Your task to perform on an android device: Open Youtube and go to the subscriptions tab Image 0: 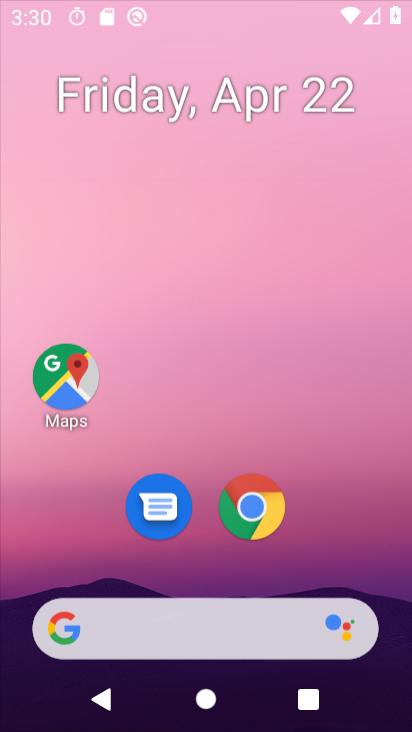
Step 0: click (387, 3)
Your task to perform on an android device: Open Youtube and go to the subscriptions tab Image 1: 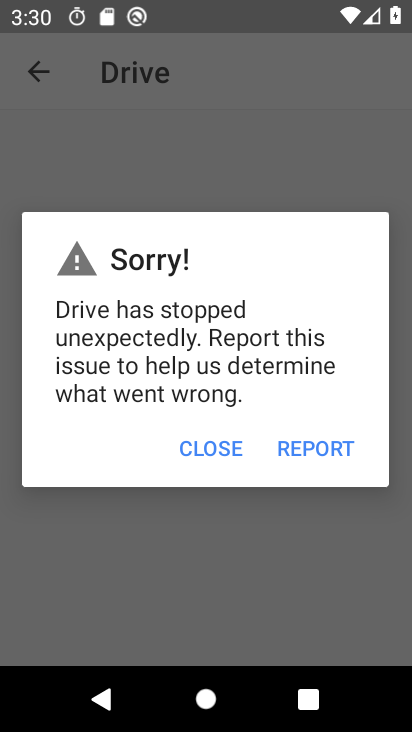
Step 1: press home button
Your task to perform on an android device: Open Youtube and go to the subscriptions tab Image 2: 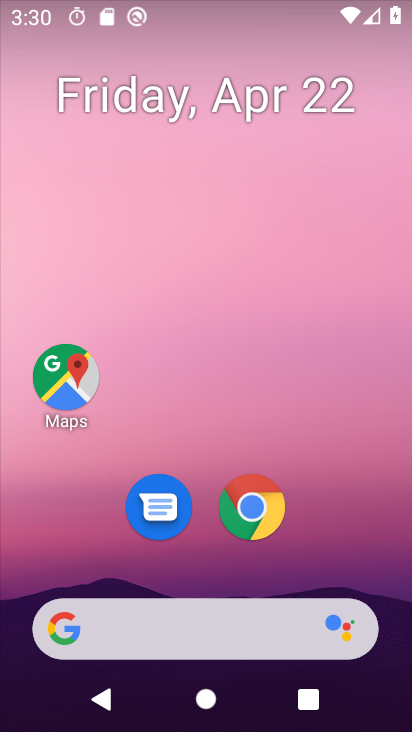
Step 2: drag from (356, 363) to (347, 50)
Your task to perform on an android device: Open Youtube and go to the subscriptions tab Image 3: 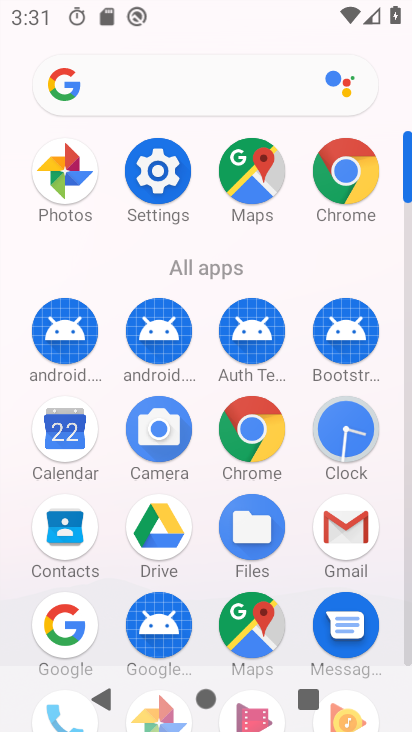
Step 3: click (390, 607)
Your task to perform on an android device: Open Youtube and go to the subscriptions tab Image 4: 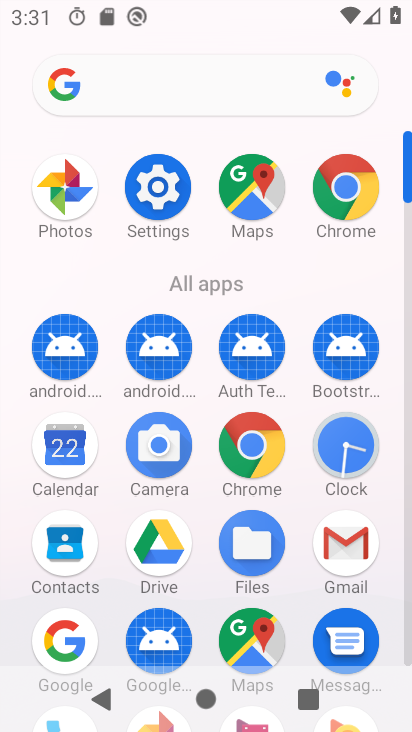
Step 4: click (356, 644)
Your task to perform on an android device: Open Youtube and go to the subscriptions tab Image 5: 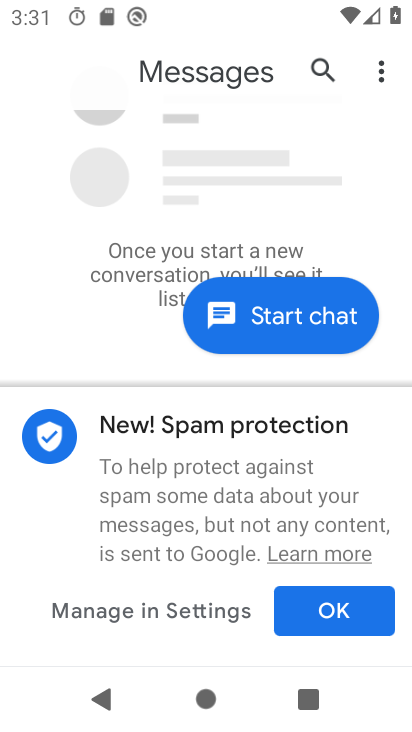
Step 5: press home button
Your task to perform on an android device: Open Youtube and go to the subscriptions tab Image 6: 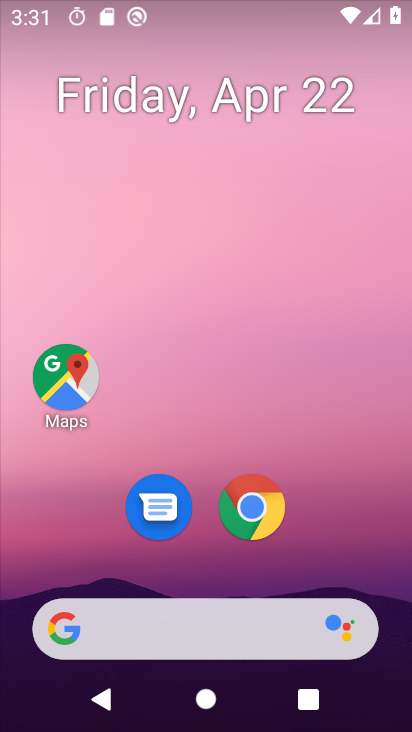
Step 6: click (351, 60)
Your task to perform on an android device: Open Youtube and go to the subscriptions tab Image 7: 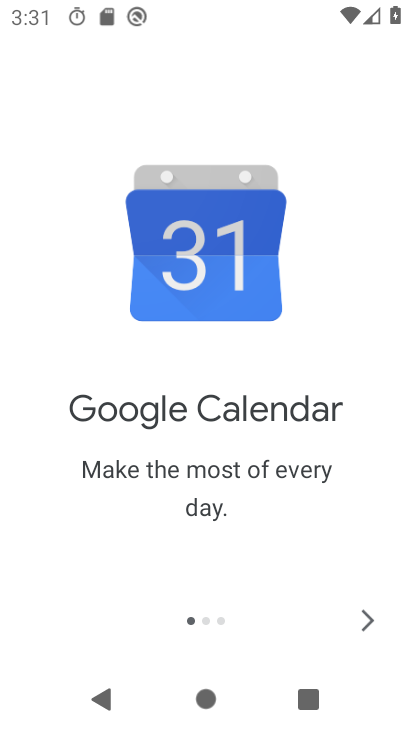
Step 7: click (375, 608)
Your task to perform on an android device: Open Youtube and go to the subscriptions tab Image 8: 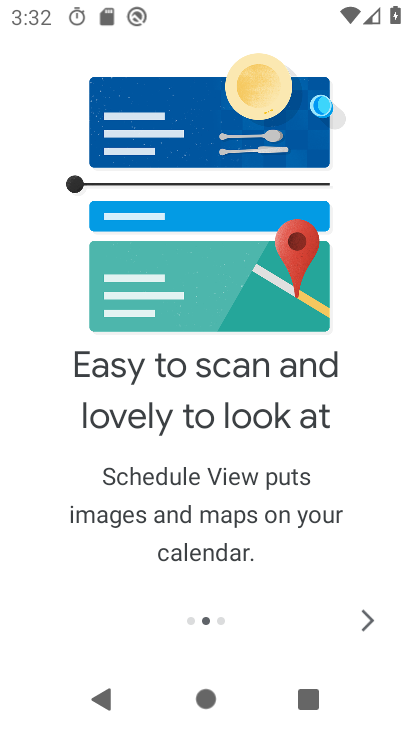
Step 8: click (362, 622)
Your task to perform on an android device: Open Youtube and go to the subscriptions tab Image 9: 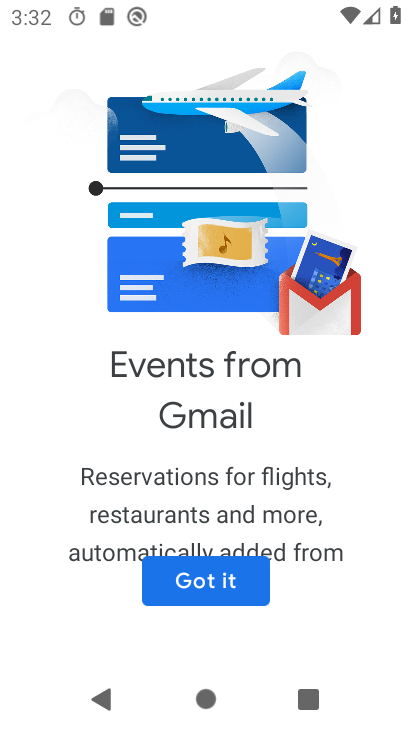
Step 9: click (231, 597)
Your task to perform on an android device: Open Youtube and go to the subscriptions tab Image 10: 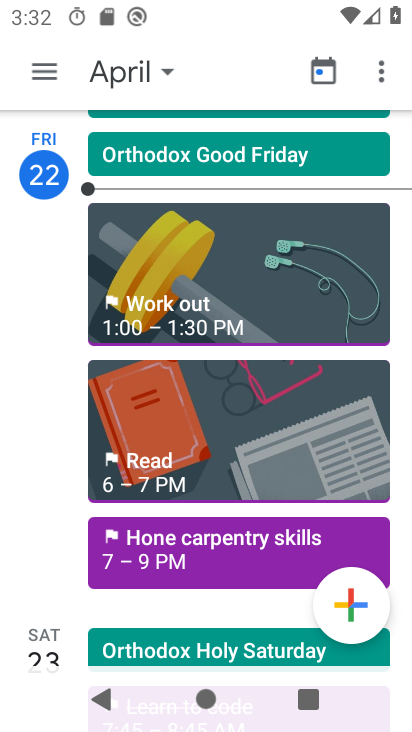
Step 10: click (220, 716)
Your task to perform on an android device: Open Youtube and go to the subscriptions tab Image 11: 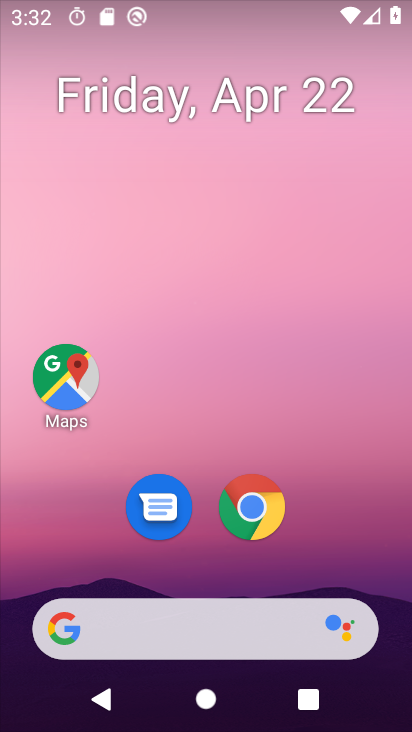
Step 11: drag from (353, 395) to (402, 35)
Your task to perform on an android device: Open Youtube and go to the subscriptions tab Image 12: 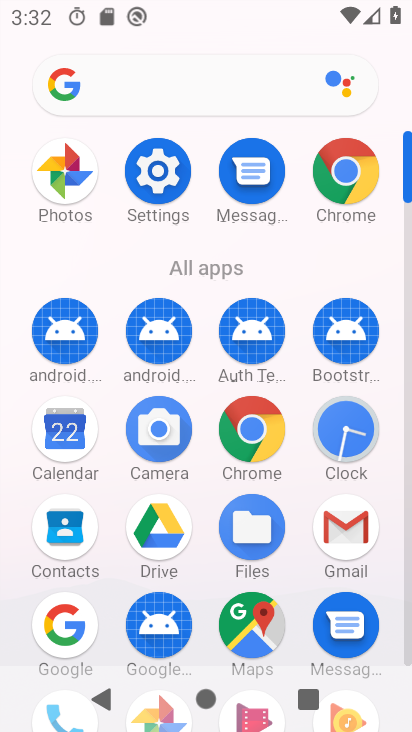
Step 12: drag from (375, 474) to (409, 150)
Your task to perform on an android device: Open Youtube and go to the subscriptions tab Image 13: 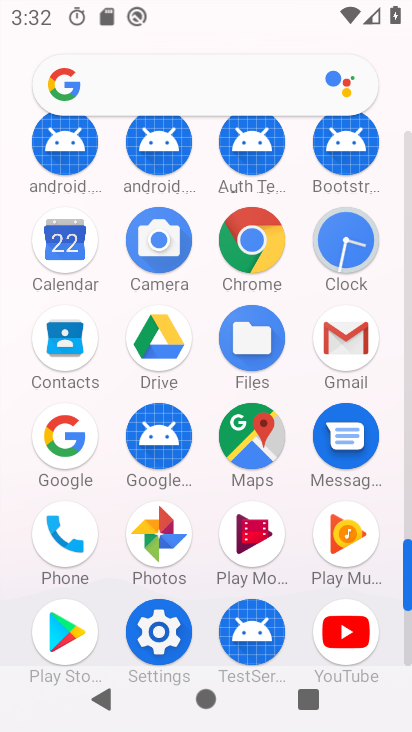
Step 13: drag from (393, 511) to (411, 97)
Your task to perform on an android device: Open Youtube and go to the subscriptions tab Image 14: 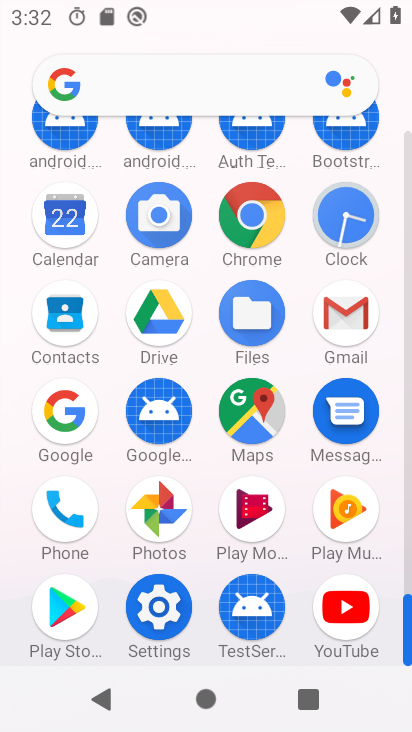
Step 14: click (365, 606)
Your task to perform on an android device: Open Youtube and go to the subscriptions tab Image 15: 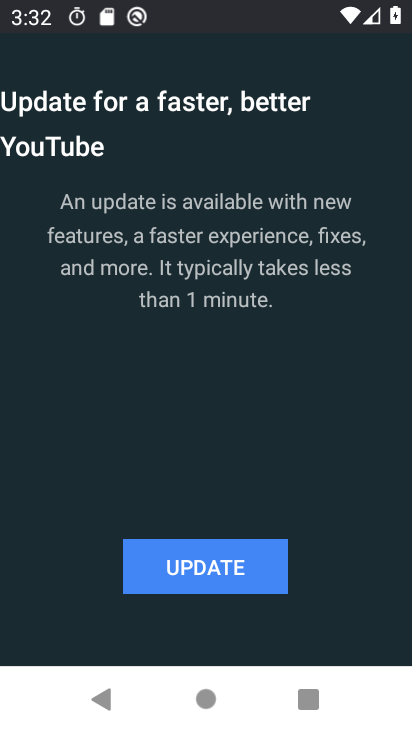
Step 15: click (241, 576)
Your task to perform on an android device: Open Youtube and go to the subscriptions tab Image 16: 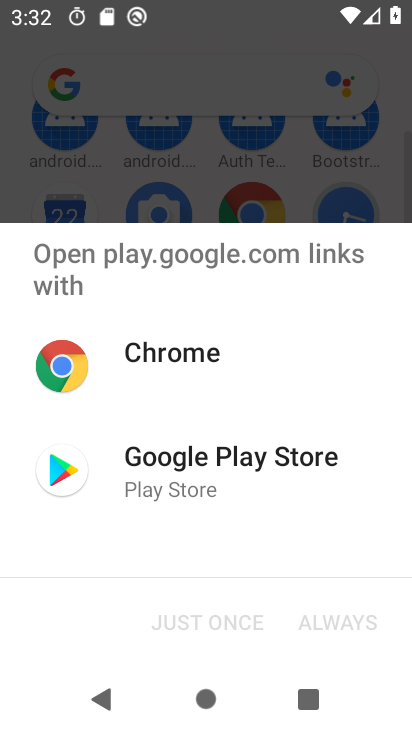
Step 16: click (172, 475)
Your task to perform on an android device: Open Youtube and go to the subscriptions tab Image 17: 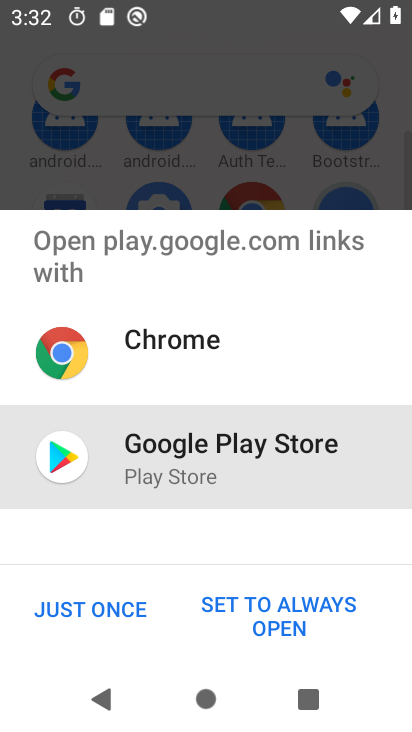
Step 17: click (54, 612)
Your task to perform on an android device: Open Youtube and go to the subscriptions tab Image 18: 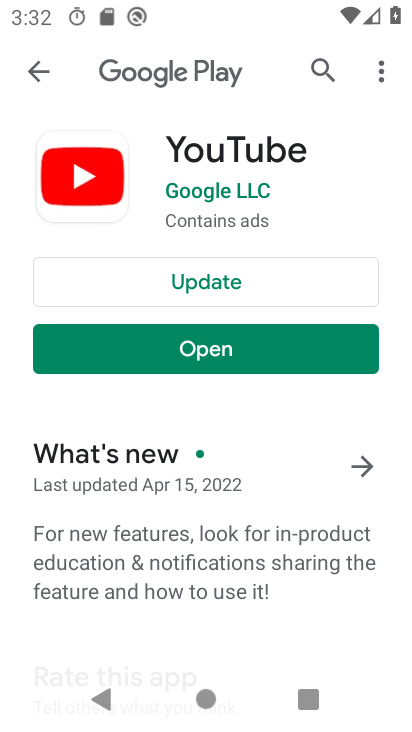
Step 18: click (212, 273)
Your task to perform on an android device: Open Youtube and go to the subscriptions tab Image 19: 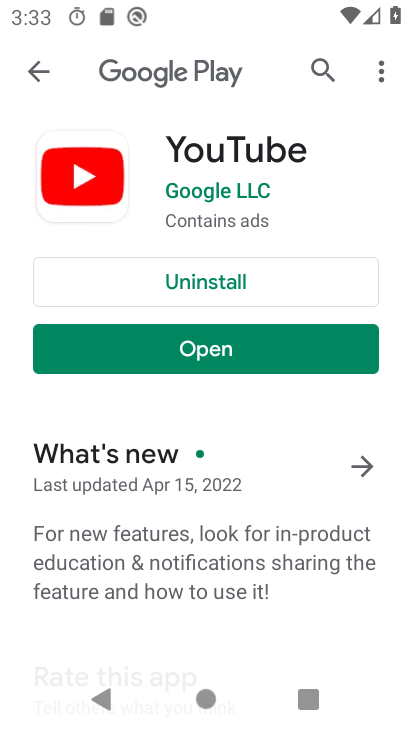
Step 19: click (275, 345)
Your task to perform on an android device: Open Youtube and go to the subscriptions tab Image 20: 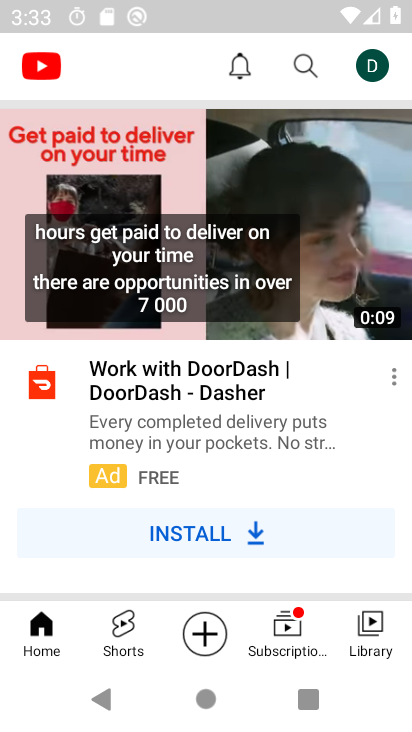
Step 20: click (282, 624)
Your task to perform on an android device: Open Youtube and go to the subscriptions tab Image 21: 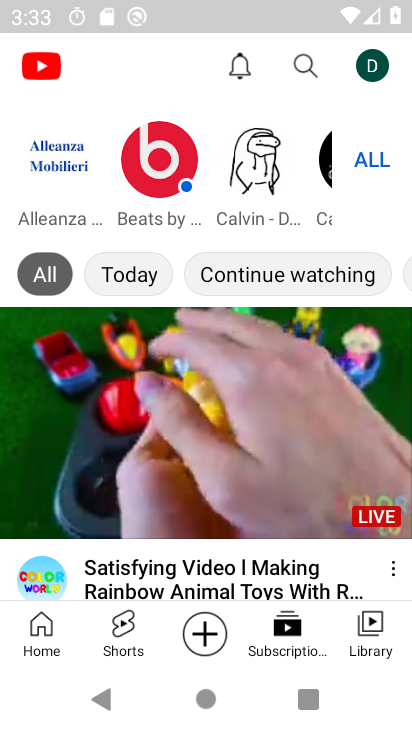
Step 21: task complete